Your task to perform on an android device: Add "apple airpods pro" to the cart on newegg.com Image 0: 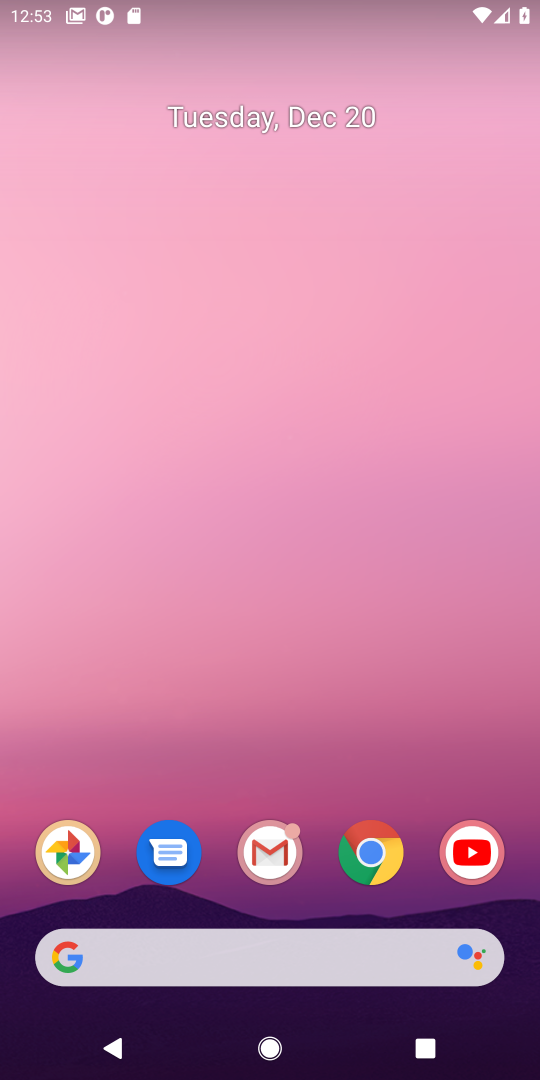
Step 0: click (379, 864)
Your task to perform on an android device: Add "apple airpods pro" to the cart on newegg.com Image 1: 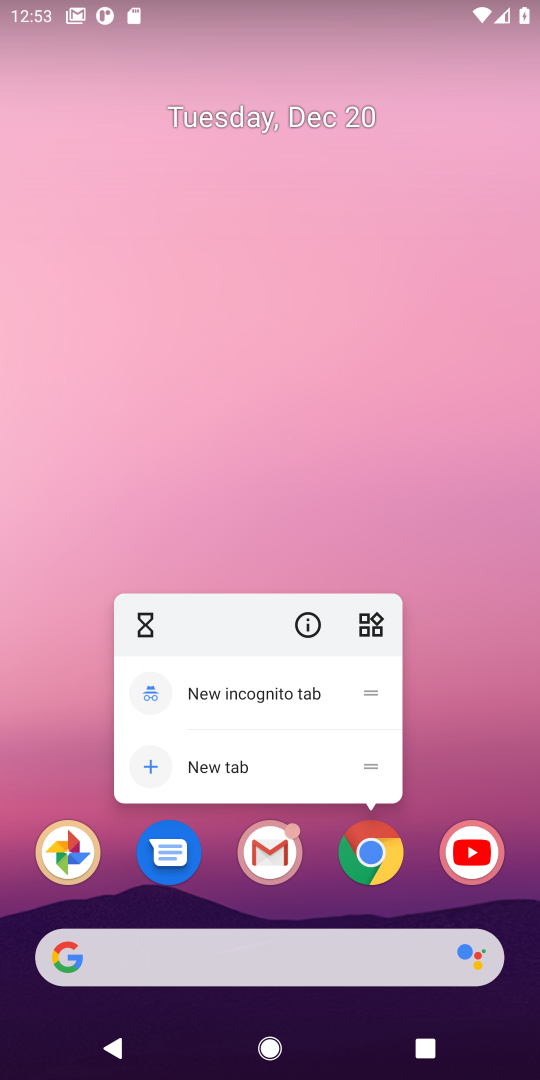
Step 1: click (379, 864)
Your task to perform on an android device: Add "apple airpods pro" to the cart on newegg.com Image 2: 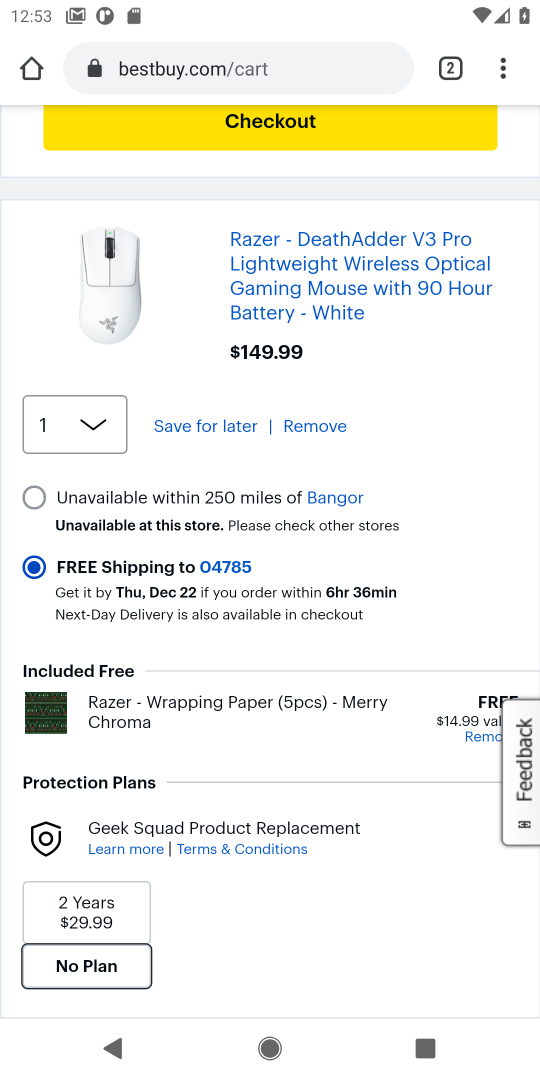
Step 2: click (183, 79)
Your task to perform on an android device: Add "apple airpods pro" to the cart on newegg.com Image 3: 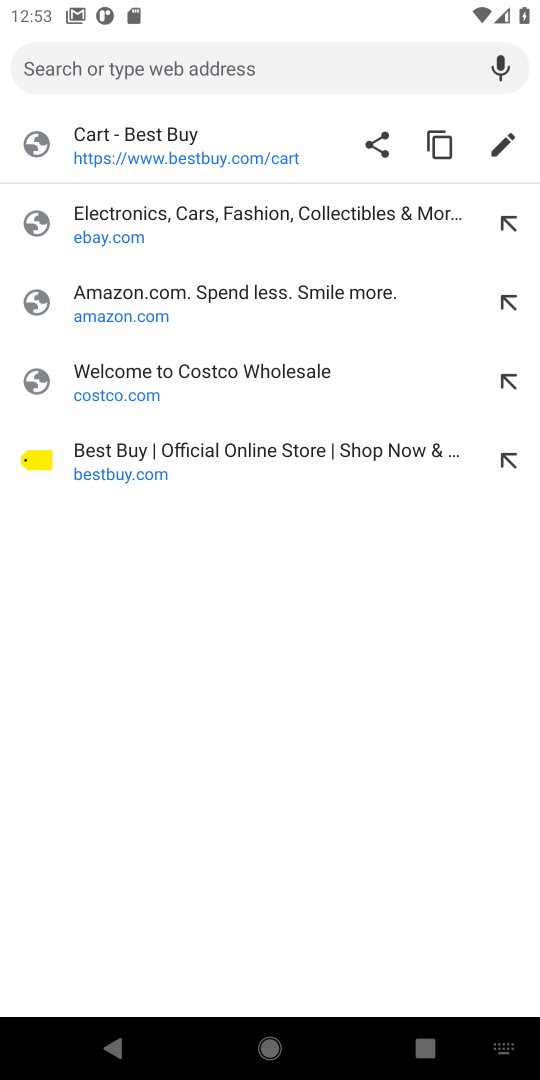
Step 3: type "newegg.com"
Your task to perform on an android device: Add "apple airpods pro" to the cart on newegg.com Image 4: 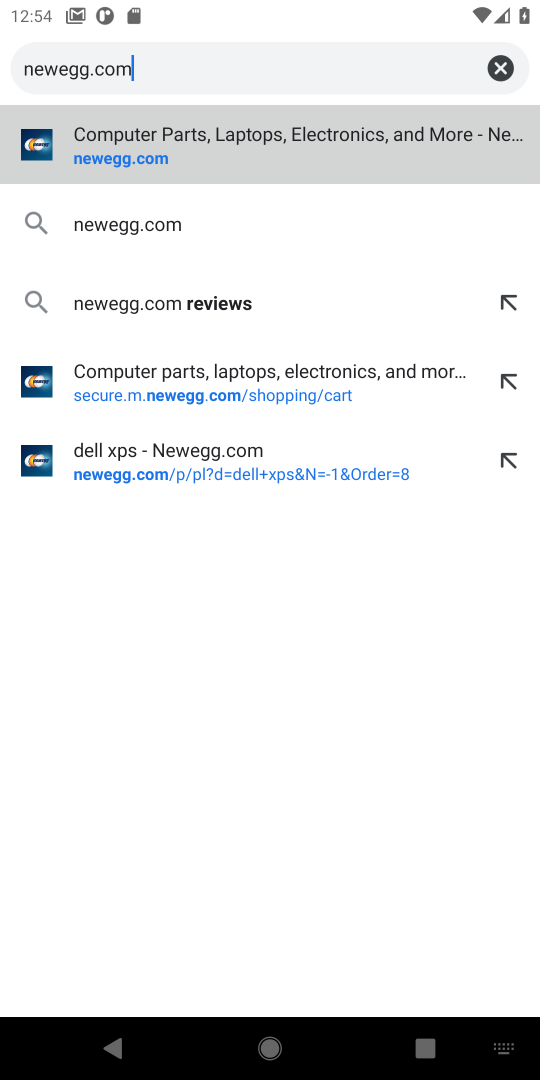
Step 4: click (120, 151)
Your task to perform on an android device: Add "apple airpods pro" to the cart on newegg.com Image 5: 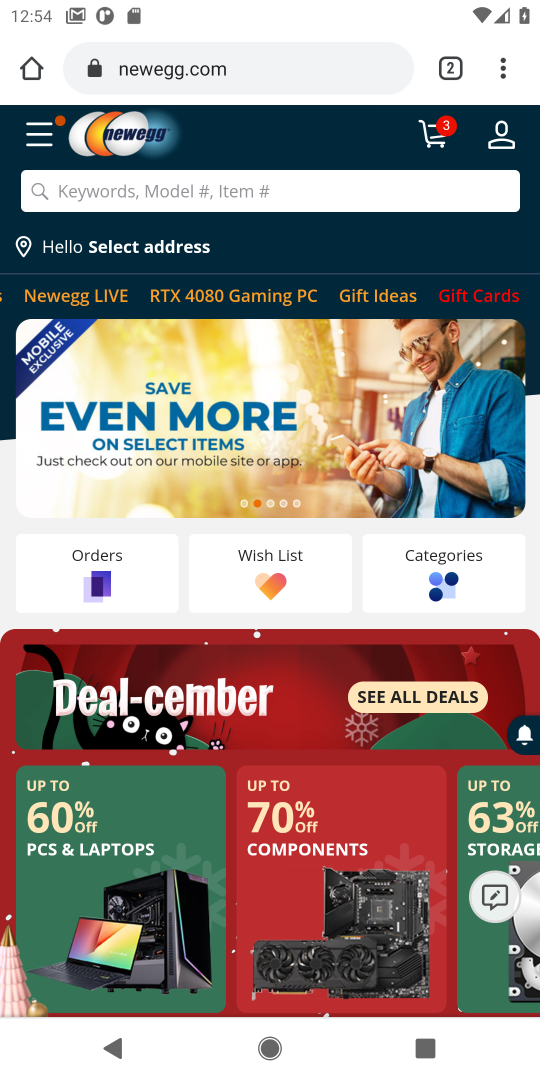
Step 5: click (69, 190)
Your task to perform on an android device: Add "apple airpods pro" to the cart on newegg.com Image 6: 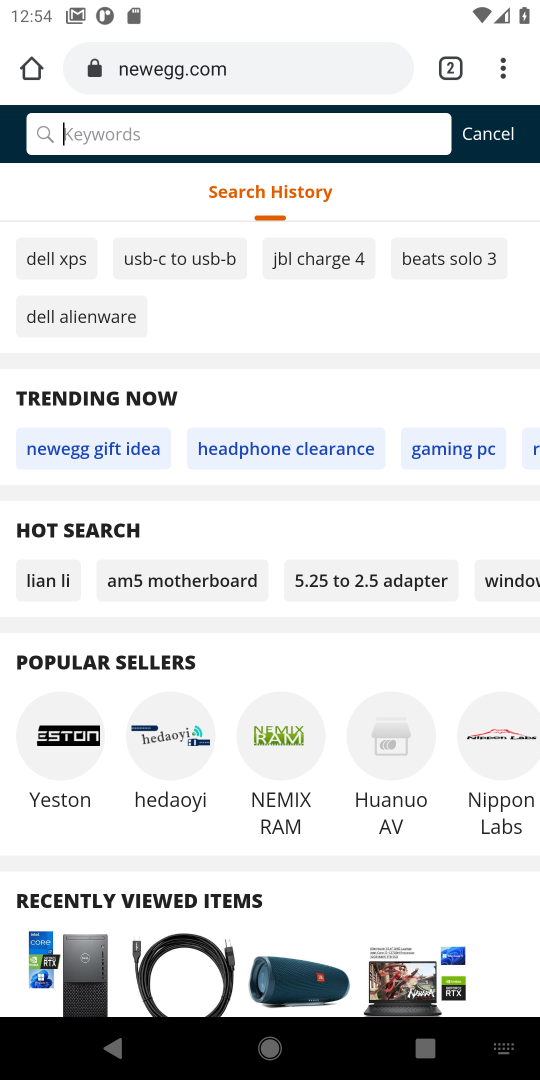
Step 6: type "apple airpods pro"
Your task to perform on an android device: Add "apple airpods pro" to the cart on newegg.com Image 7: 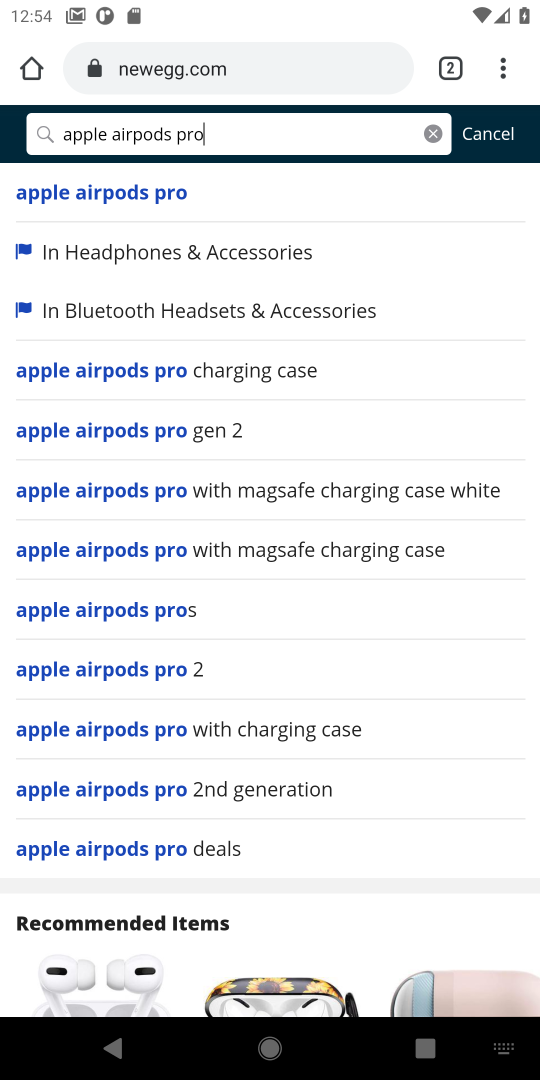
Step 7: click (118, 198)
Your task to perform on an android device: Add "apple airpods pro" to the cart on newegg.com Image 8: 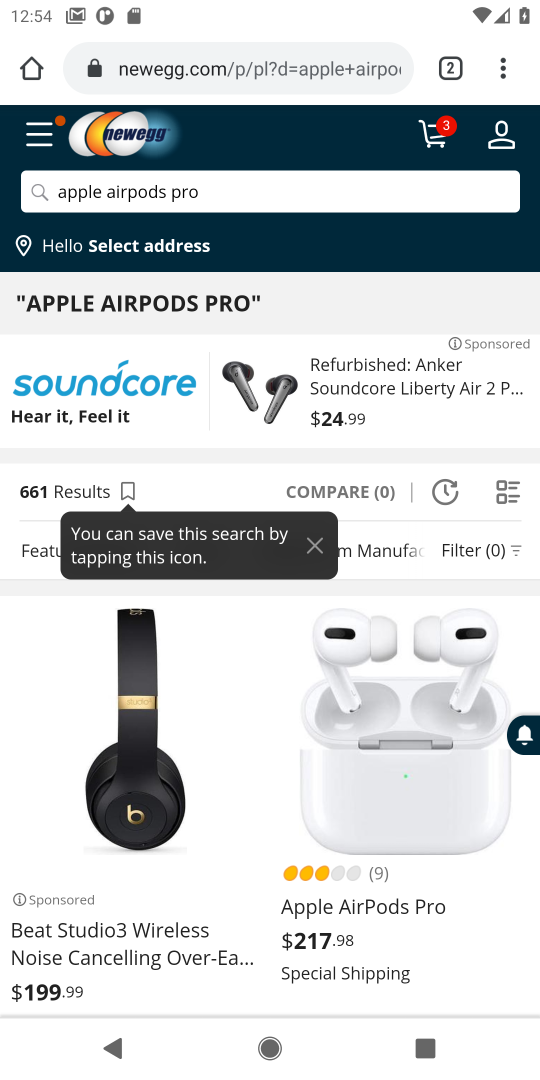
Step 8: drag from (237, 787) to (244, 556)
Your task to perform on an android device: Add "apple airpods pro" to the cart on newegg.com Image 9: 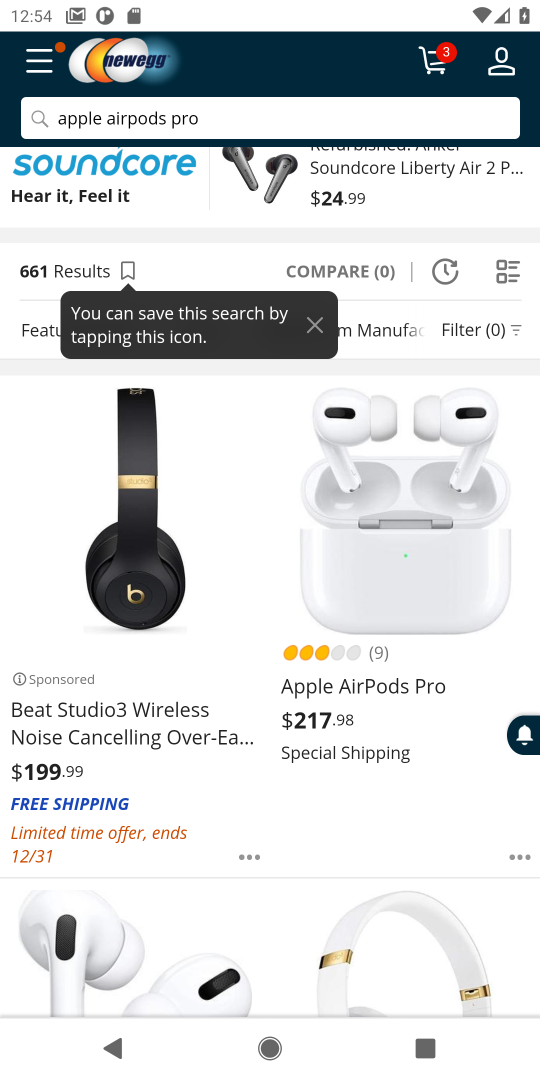
Step 9: click (365, 697)
Your task to perform on an android device: Add "apple airpods pro" to the cart on newegg.com Image 10: 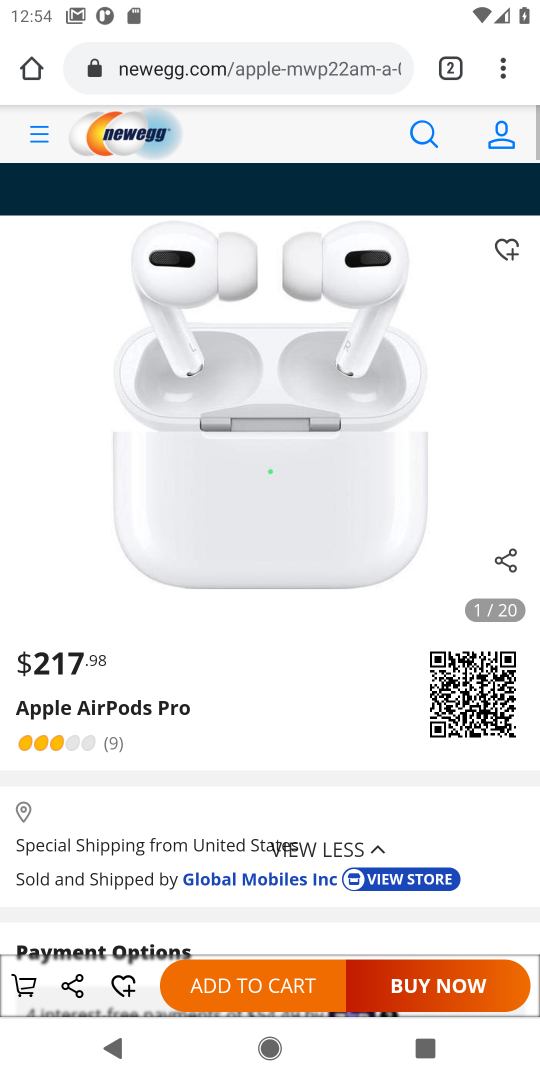
Step 10: click (258, 985)
Your task to perform on an android device: Add "apple airpods pro" to the cart on newegg.com Image 11: 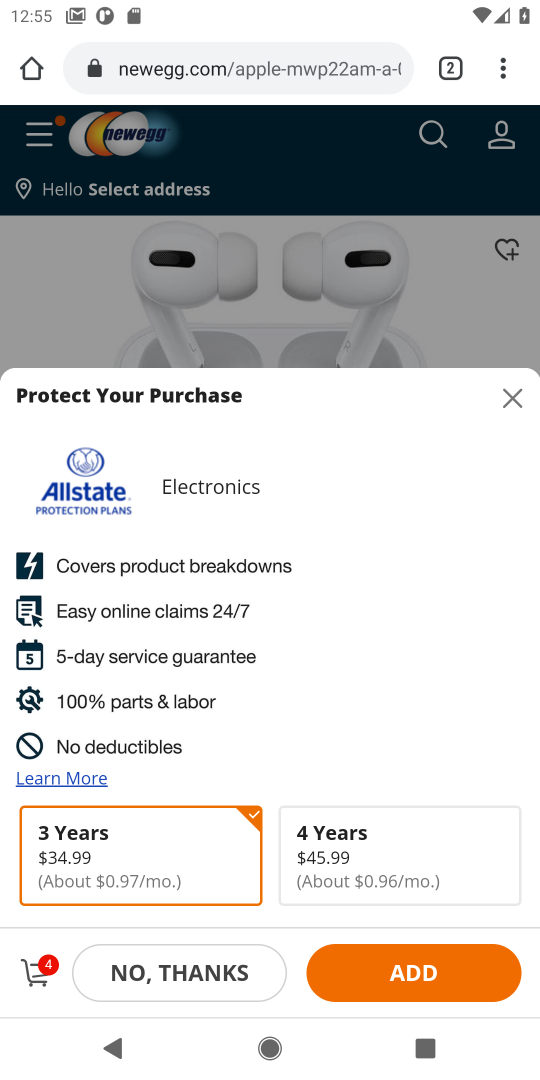
Step 11: task complete